Your task to perform on an android device: add a contact in the contacts app Image 0: 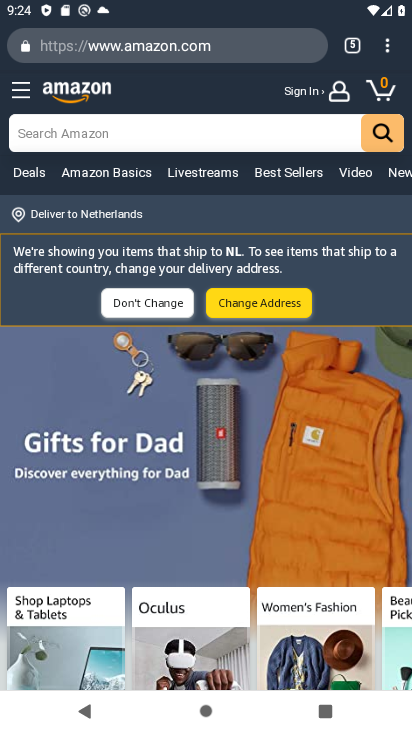
Step 0: press home button
Your task to perform on an android device: add a contact in the contacts app Image 1: 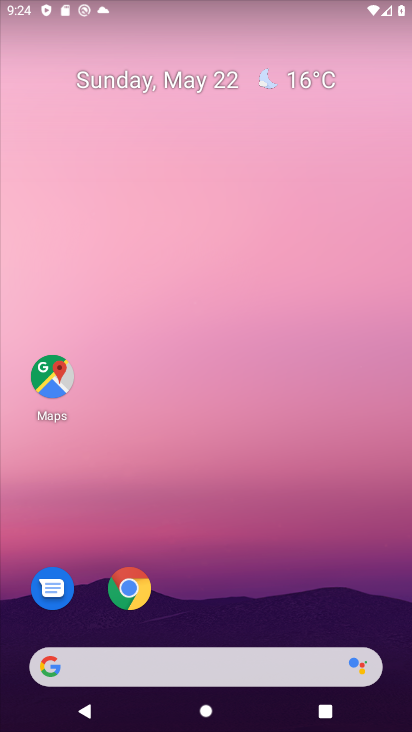
Step 1: drag from (216, 594) to (212, 182)
Your task to perform on an android device: add a contact in the contacts app Image 2: 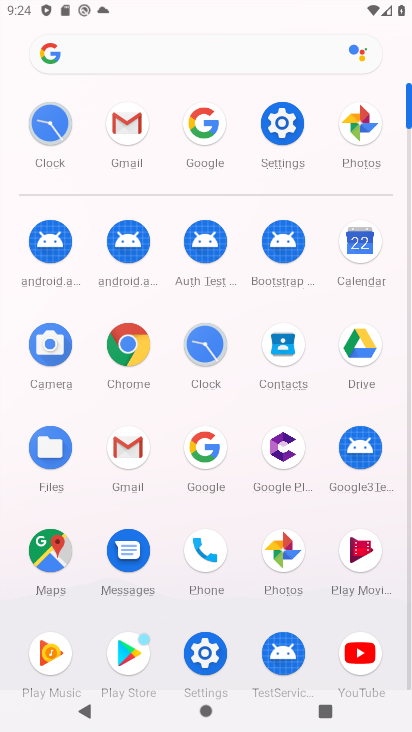
Step 2: click (288, 355)
Your task to perform on an android device: add a contact in the contacts app Image 3: 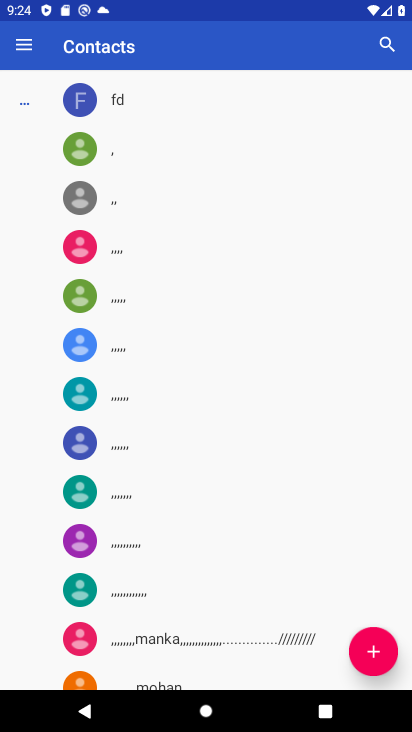
Step 3: click (370, 641)
Your task to perform on an android device: add a contact in the contacts app Image 4: 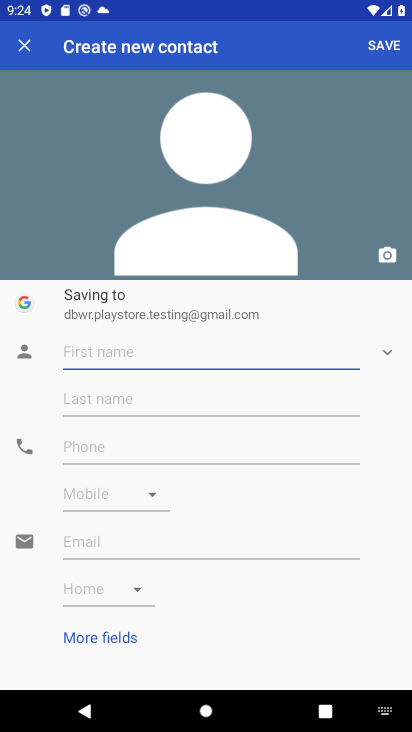
Step 4: click (202, 356)
Your task to perform on an android device: add a contact in the contacts app Image 5: 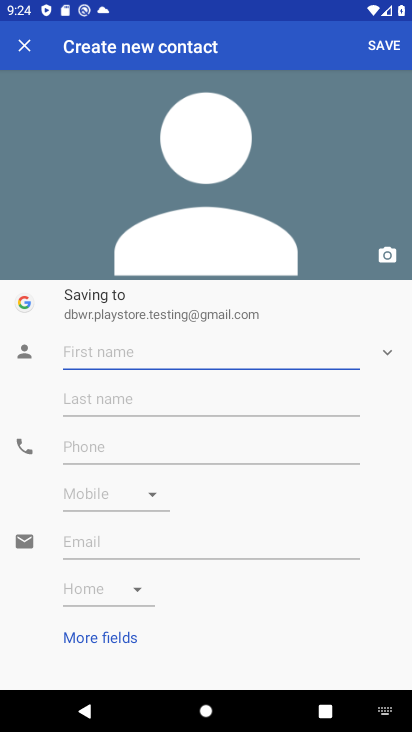
Step 5: type "jhjh"
Your task to perform on an android device: add a contact in the contacts app Image 6: 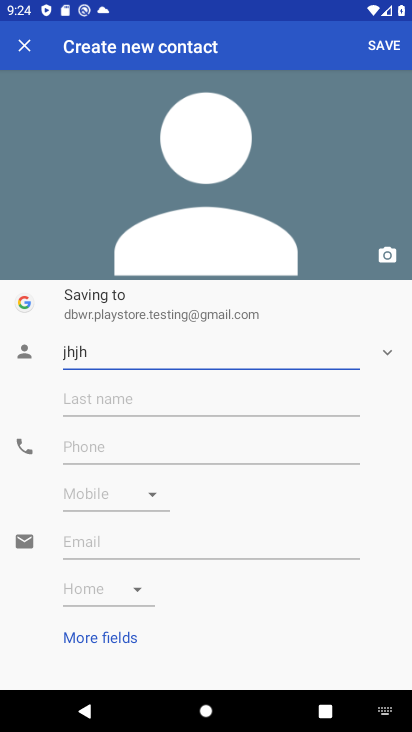
Step 6: click (146, 455)
Your task to perform on an android device: add a contact in the contacts app Image 7: 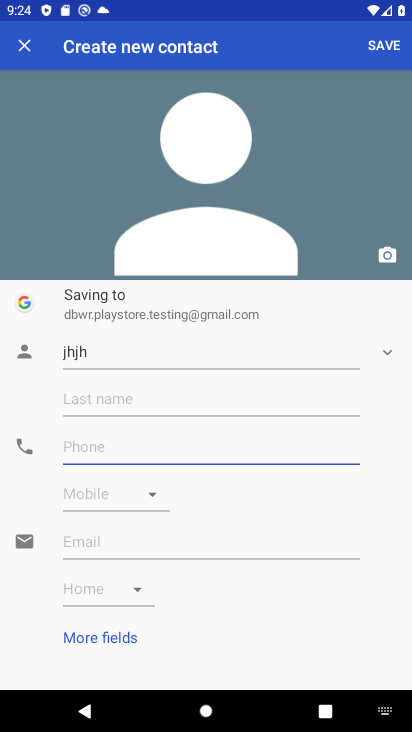
Step 7: type "979698559"
Your task to perform on an android device: add a contact in the contacts app Image 8: 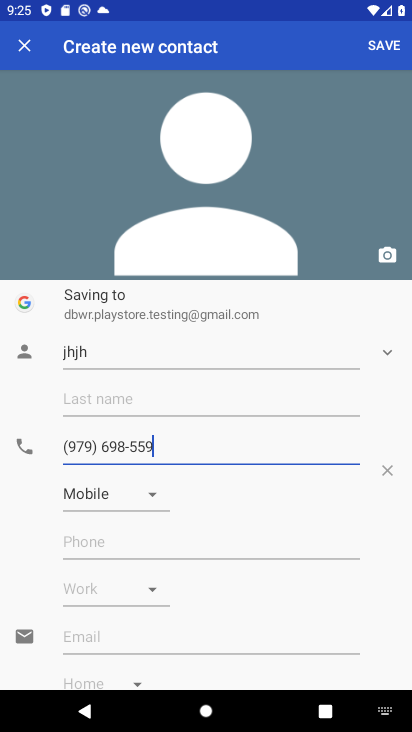
Step 8: click (386, 41)
Your task to perform on an android device: add a contact in the contacts app Image 9: 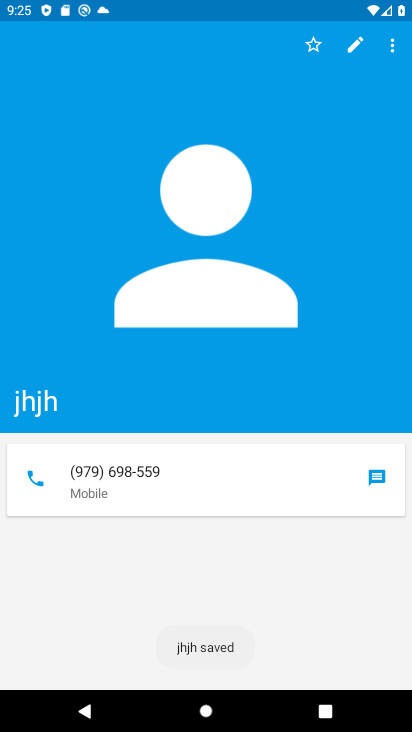
Step 9: task complete